Your task to perform on an android device: What's on my calendar tomorrow? Image 0: 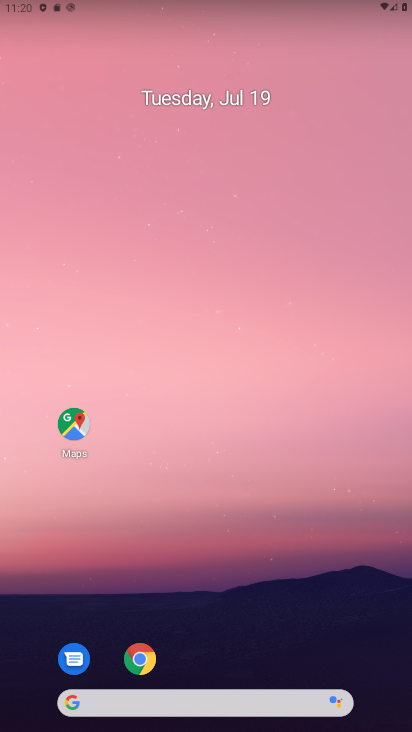
Step 0: press home button
Your task to perform on an android device: What's on my calendar tomorrow? Image 1: 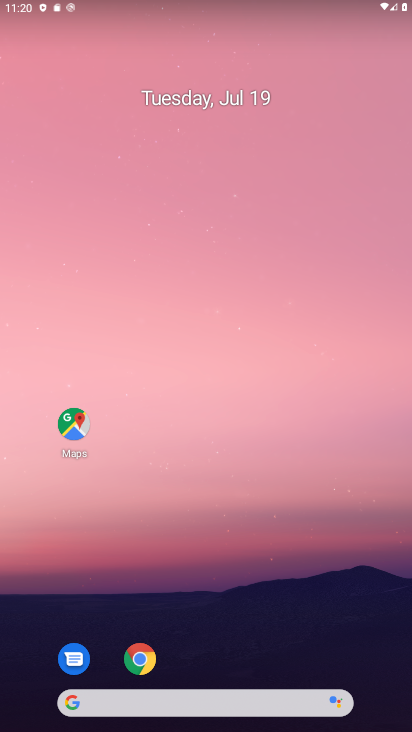
Step 1: drag from (208, 667) to (236, 40)
Your task to perform on an android device: What's on my calendar tomorrow? Image 2: 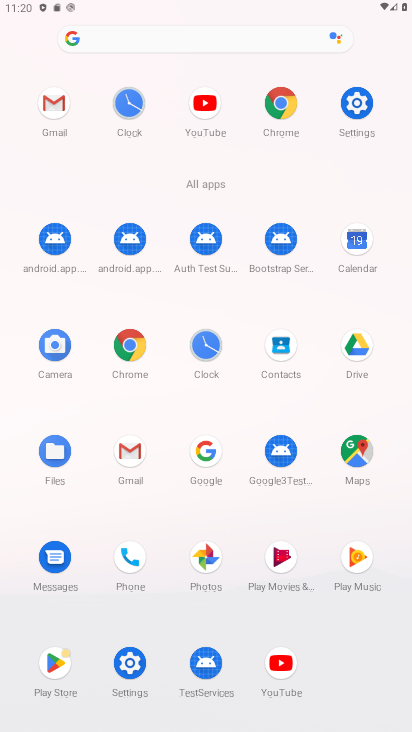
Step 2: click (356, 241)
Your task to perform on an android device: What's on my calendar tomorrow? Image 3: 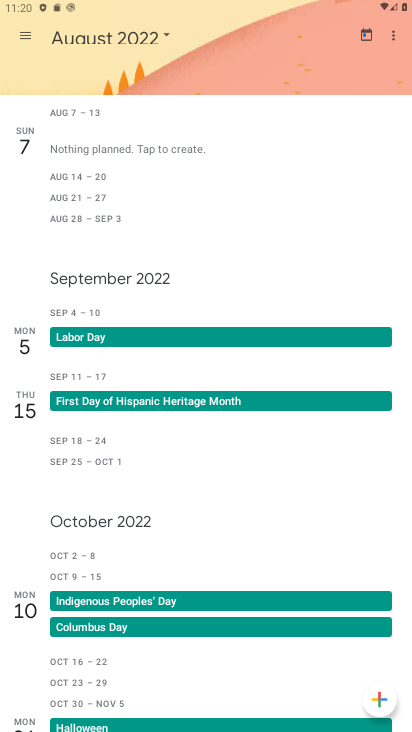
Step 3: click (22, 28)
Your task to perform on an android device: What's on my calendar tomorrow? Image 4: 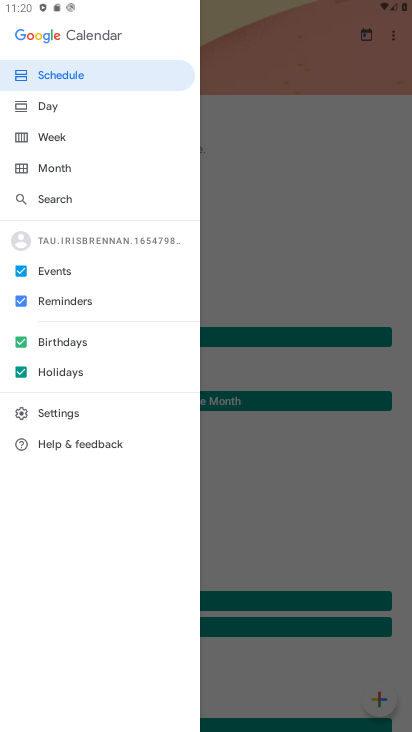
Step 4: click (50, 109)
Your task to perform on an android device: What's on my calendar tomorrow? Image 5: 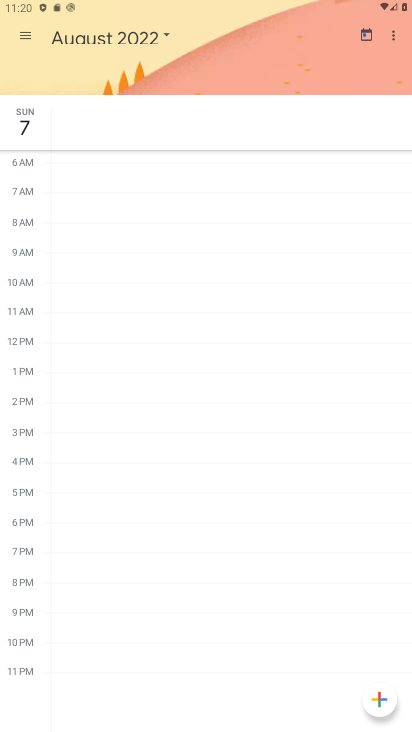
Step 5: click (165, 33)
Your task to perform on an android device: What's on my calendar tomorrow? Image 6: 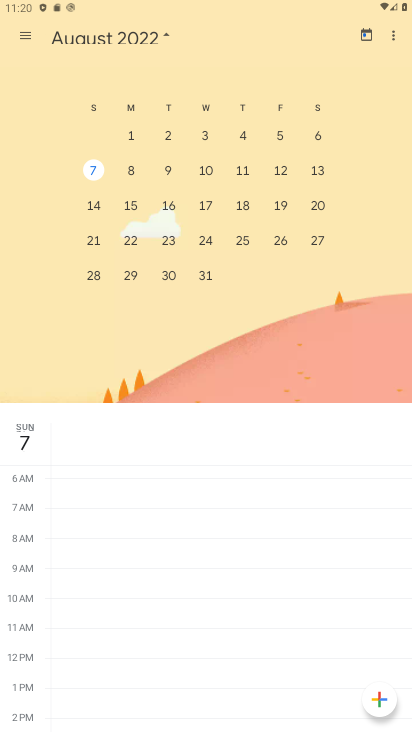
Step 6: drag from (102, 210) to (371, 235)
Your task to perform on an android device: What's on my calendar tomorrow? Image 7: 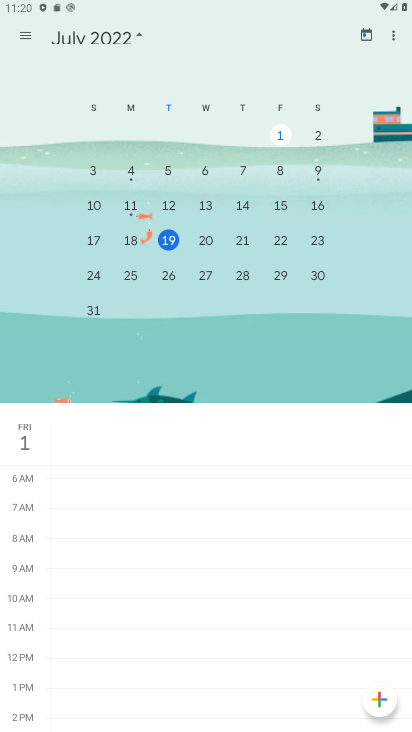
Step 7: click (202, 237)
Your task to perform on an android device: What's on my calendar tomorrow? Image 8: 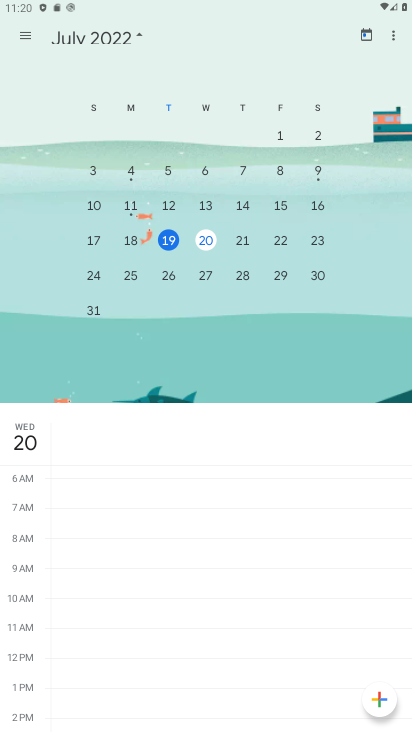
Step 8: click (138, 28)
Your task to perform on an android device: What's on my calendar tomorrow? Image 9: 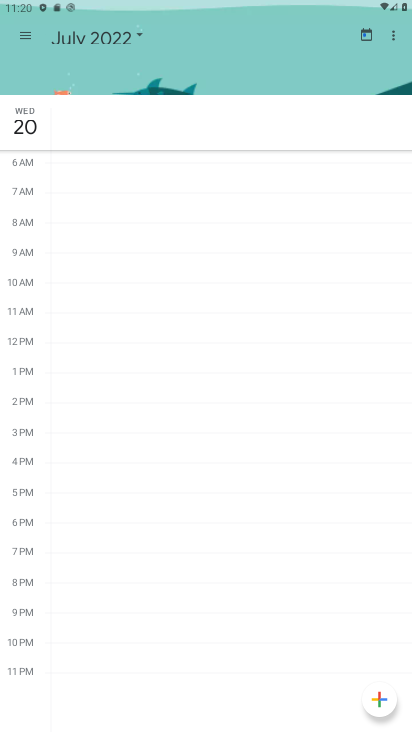
Step 9: task complete